Your task to perform on an android device: Check the weather Image 0: 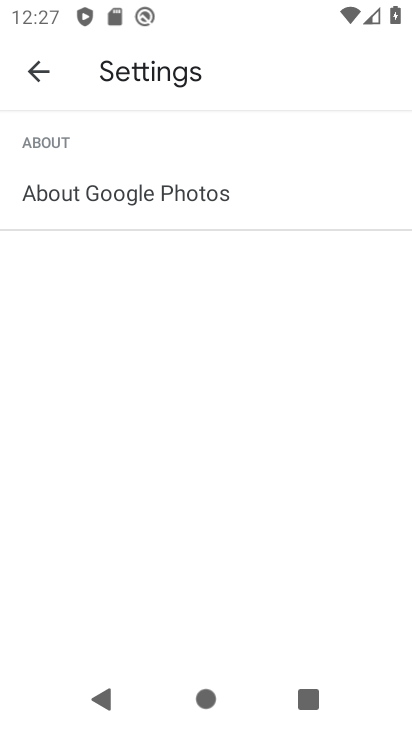
Step 0: press home button
Your task to perform on an android device: Check the weather Image 1: 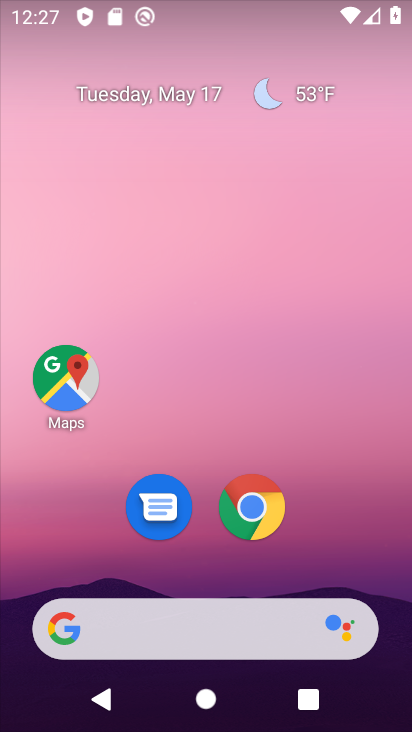
Step 1: drag from (207, 587) to (158, 6)
Your task to perform on an android device: Check the weather Image 2: 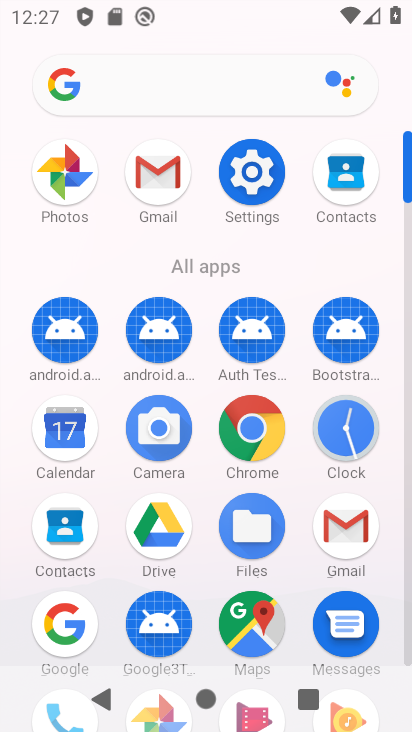
Step 2: click (155, 64)
Your task to perform on an android device: Check the weather Image 3: 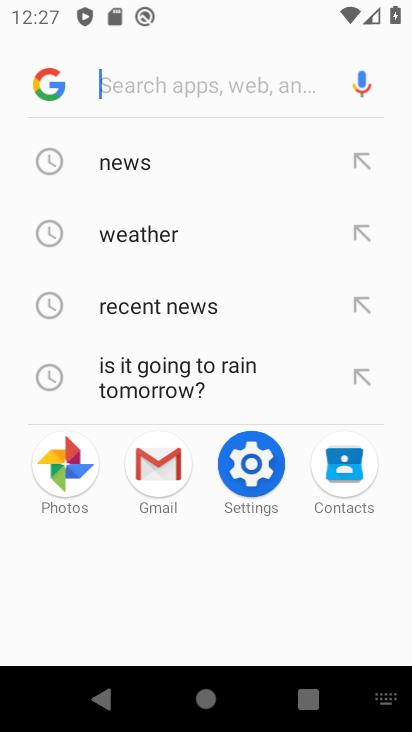
Step 3: type "weather"
Your task to perform on an android device: Check the weather Image 4: 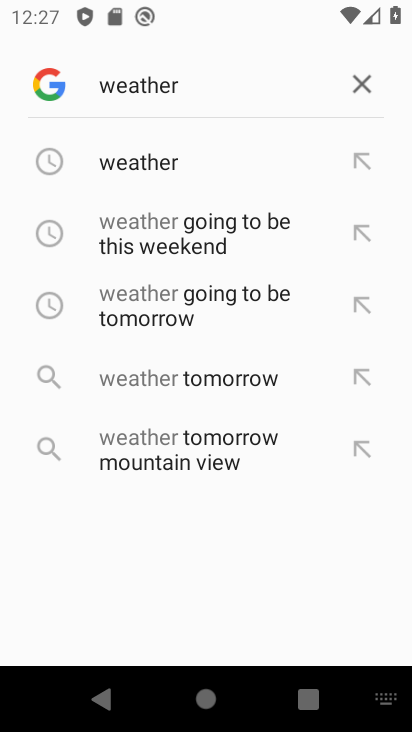
Step 4: click (131, 149)
Your task to perform on an android device: Check the weather Image 5: 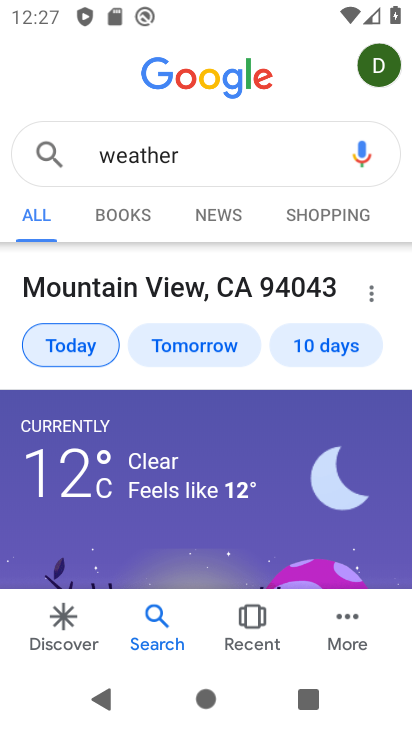
Step 5: task complete